Your task to perform on an android device: Is it going to rain tomorrow? Image 0: 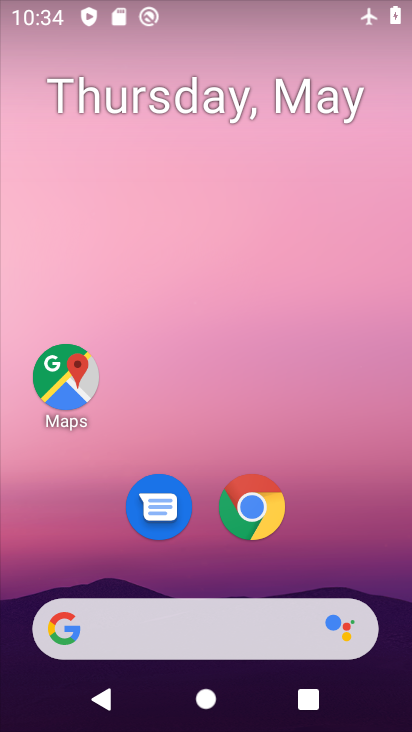
Step 0: drag from (244, 578) to (363, 51)
Your task to perform on an android device: Is it going to rain tomorrow? Image 1: 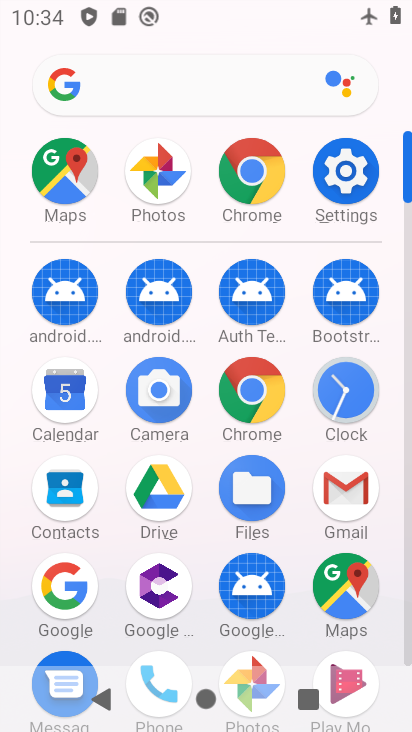
Step 1: click (67, 586)
Your task to perform on an android device: Is it going to rain tomorrow? Image 2: 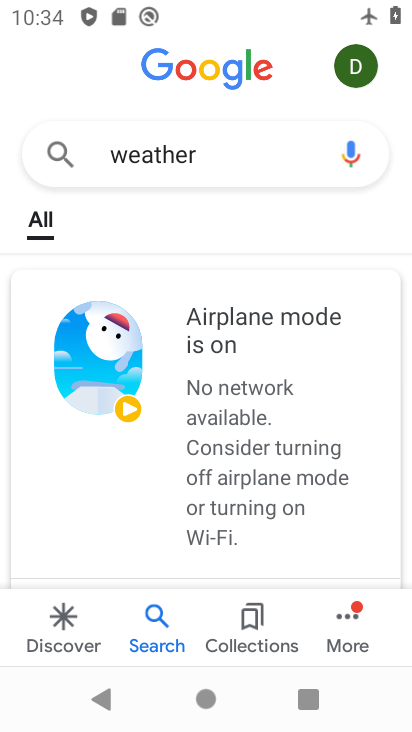
Step 2: task complete